Your task to perform on an android device: remove spam from my inbox in the gmail app Image 0: 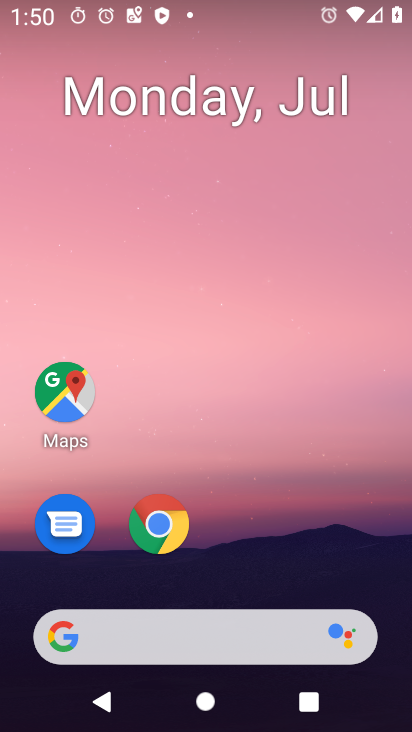
Step 0: press home button
Your task to perform on an android device: remove spam from my inbox in the gmail app Image 1: 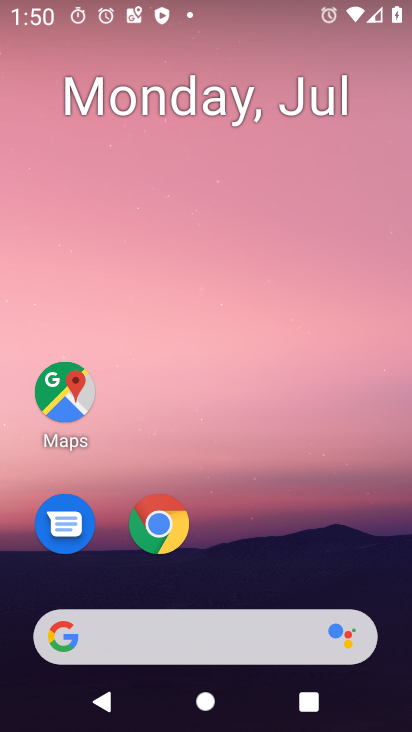
Step 1: drag from (283, 467) to (320, 5)
Your task to perform on an android device: remove spam from my inbox in the gmail app Image 2: 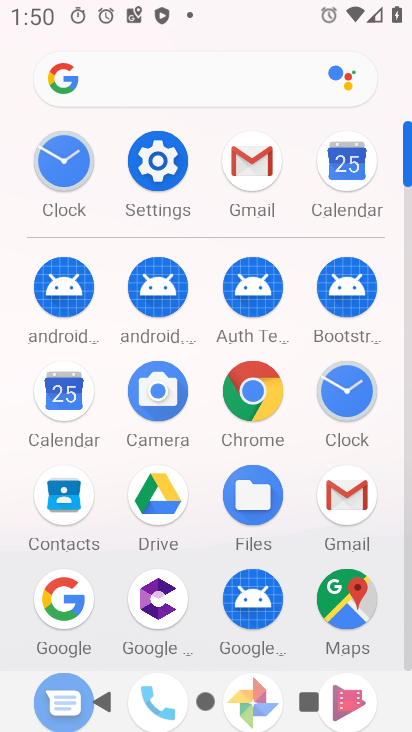
Step 2: click (250, 162)
Your task to perform on an android device: remove spam from my inbox in the gmail app Image 3: 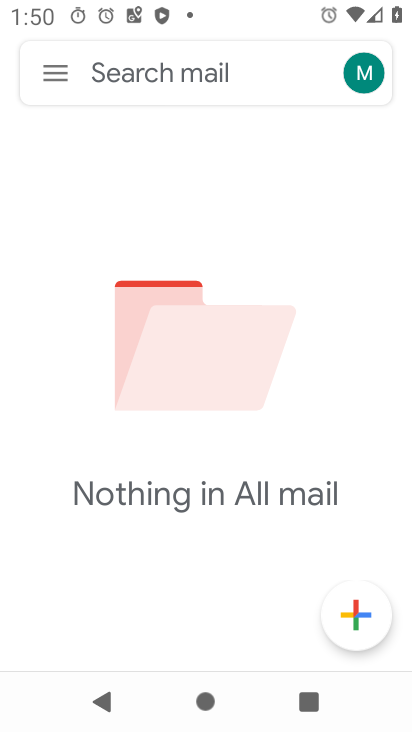
Step 3: click (51, 81)
Your task to perform on an android device: remove spam from my inbox in the gmail app Image 4: 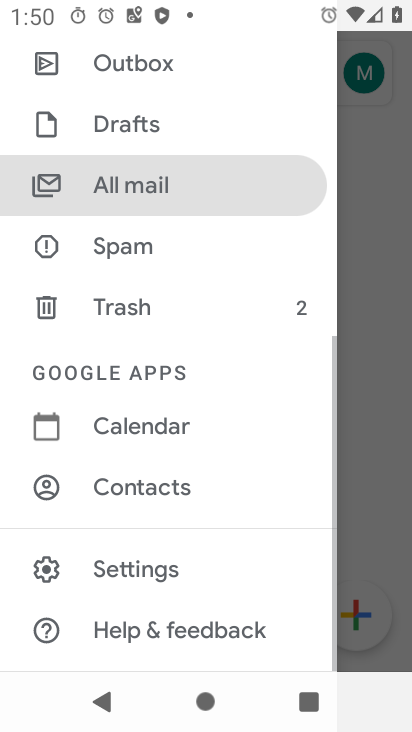
Step 4: click (203, 192)
Your task to perform on an android device: remove spam from my inbox in the gmail app Image 5: 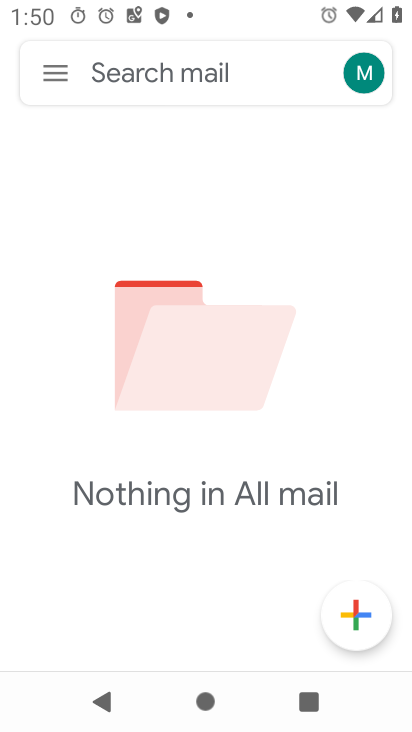
Step 5: task complete